Your task to perform on an android device: find which apps use the phone's location Image 0: 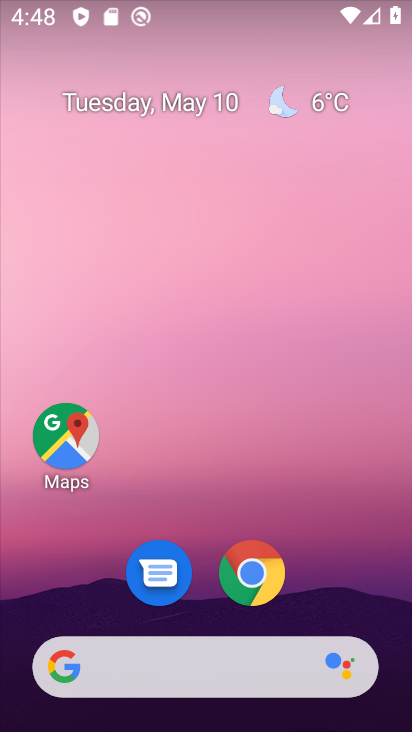
Step 0: drag from (145, 630) to (271, 106)
Your task to perform on an android device: find which apps use the phone's location Image 1: 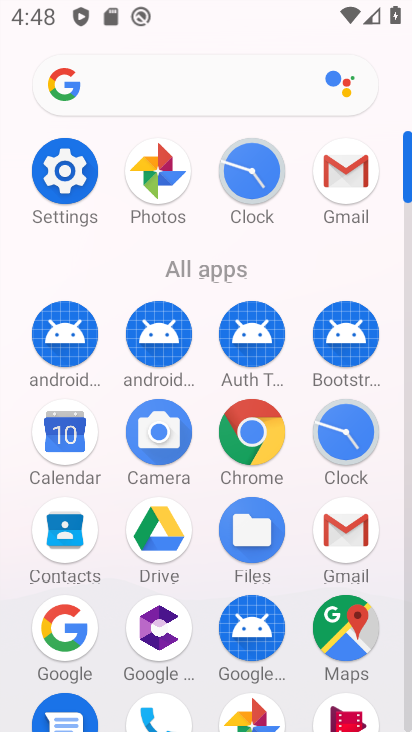
Step 1: drag from (154, 659) to (221, 367)
Your task to perform on an android device: find which apps use the phone's location Image 2: 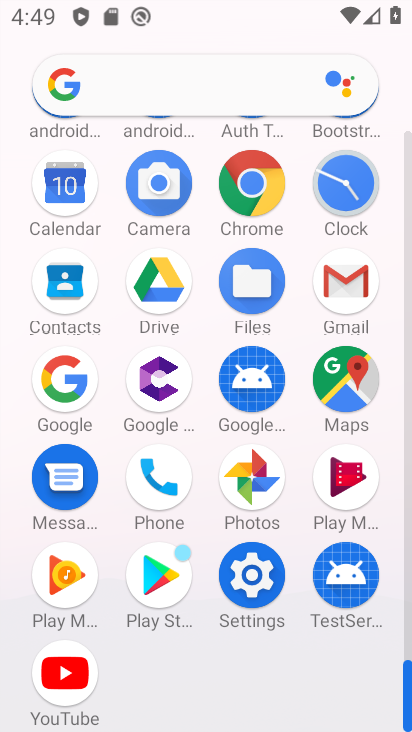
Step 2: click (246, 595)
Your task to perform on an android device: find which apps use the phone's location Image 3: 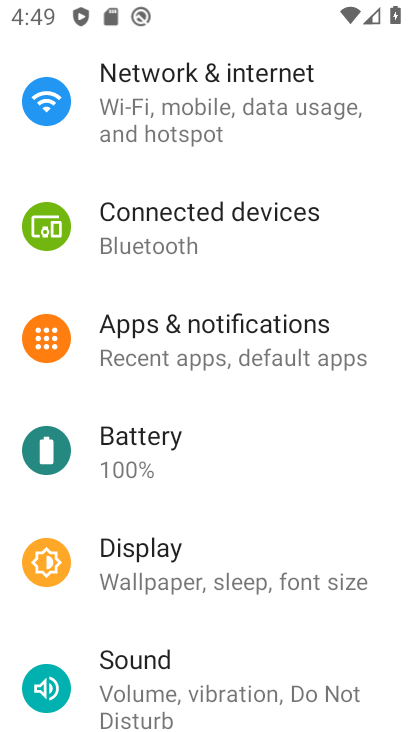
Step 3: drag from (171, 682) to (239, 373)
Your task to perform on an android device: find which apps use the phone's location Image 4: 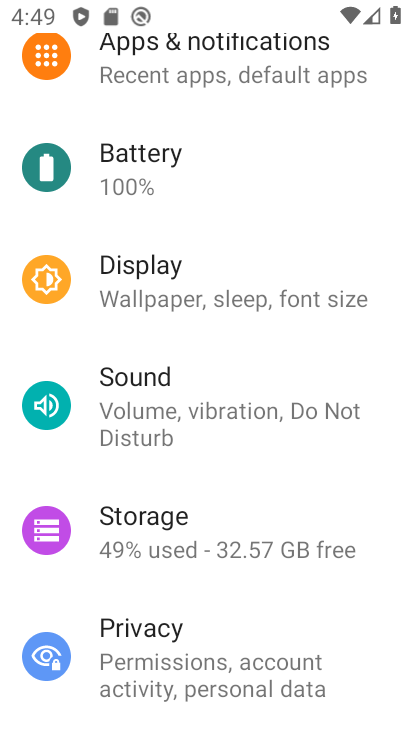
Step 4: drag from (190, 641) to (262, 328)
Your task to perform on an android device: find which apps use the phone's location Image 5: 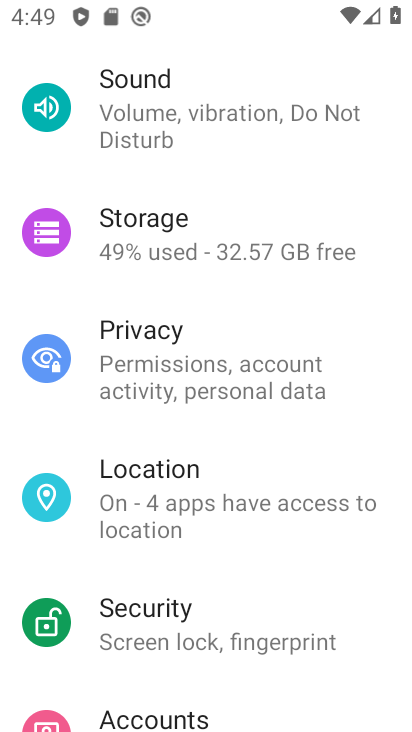
Step 5: click (179, 488)
Your task to perform on an android device: find which apps use the phone's location Image 6: 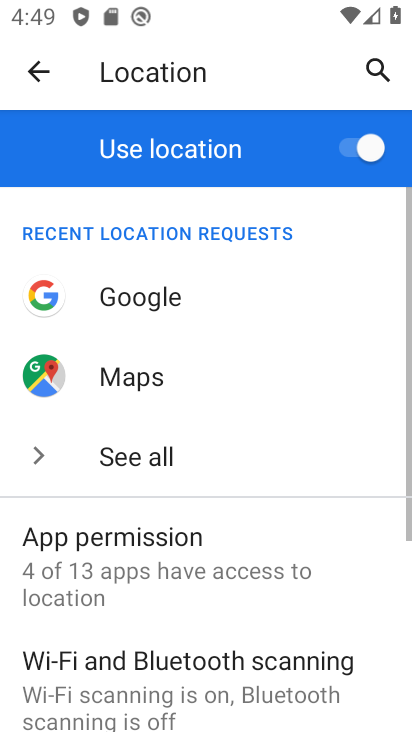
Step 6: click (204, 561)
Your task to perform on an android device: find which apps use the phone's location Image 7: 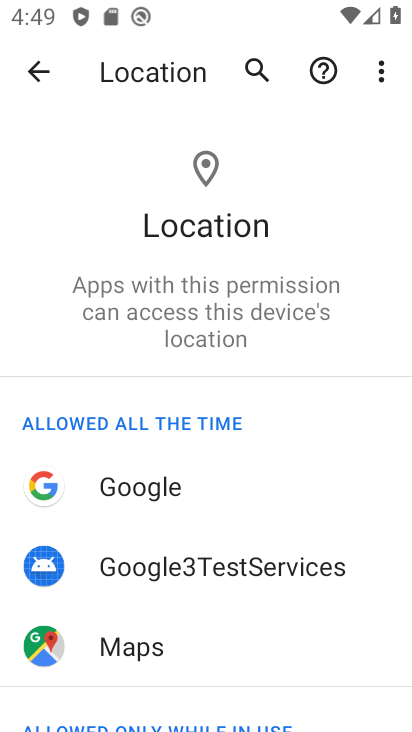
Step 7: task complete